Your task to perform on an android device: Open Google Chrome and open the bookmarks view Image 0: 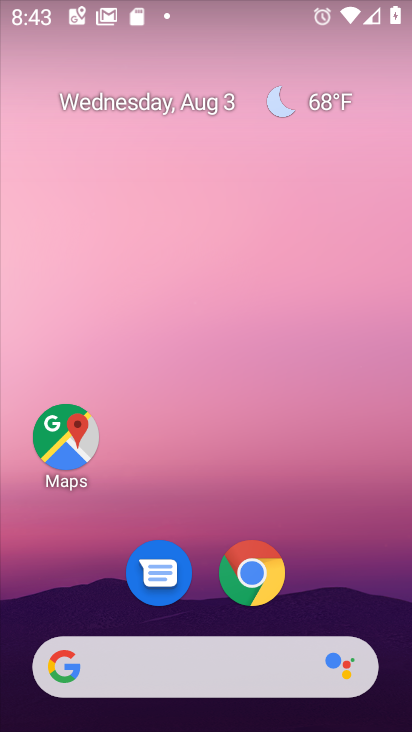
Step 0: click (250, 575)
Your task to perform on an android device: Open Google Chrome and open the bookmarks view Image 1: 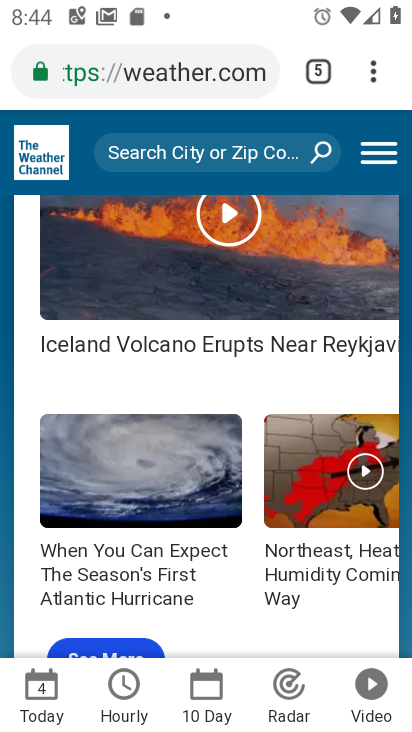
Step 1: click (376, 71)
Your task to perform on an android device: Open Google Chrome and open the bookmarks view Image 2: 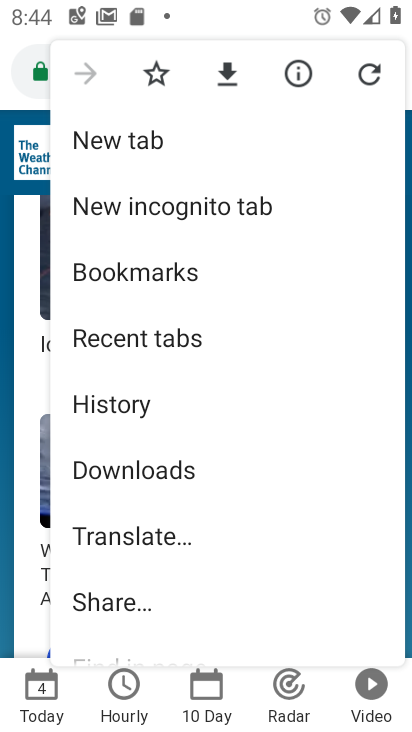
Step 2: click (144, 281)
Your task to perform on an android device: Open Google Chrome and open the bookmarks view Image 3: 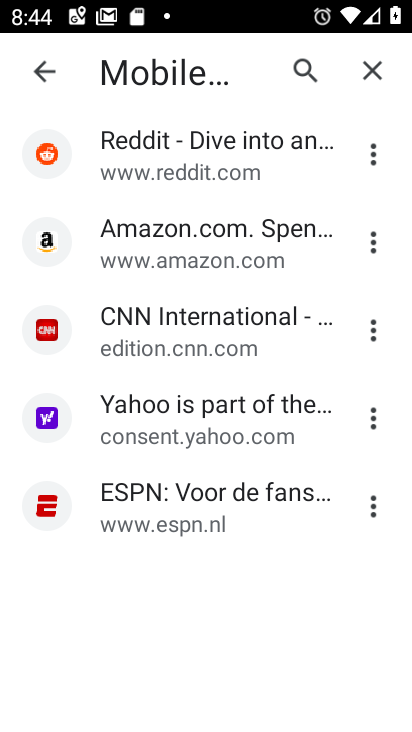
Step 3: task complete